Your task to perform on an android device: Open settings Image 0: 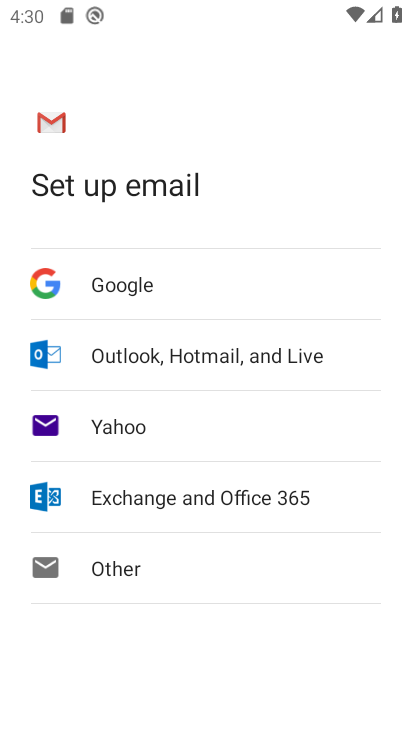
Step 0: press home button
Your task to perform on an android device: Open settings Image 1: 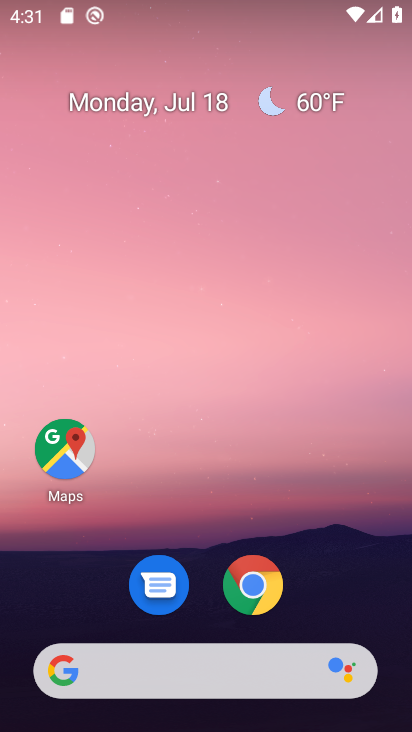
Step 1: drag from (321, 540) to (339, 15)
Your task to perform on an android device: Open settings Image 2: 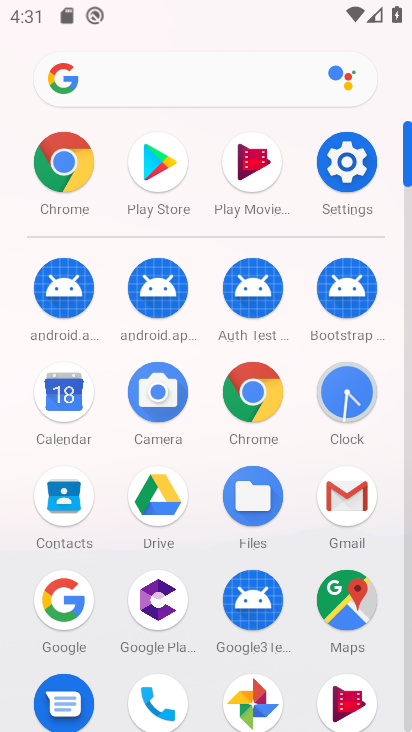
Step 2: click (355, 165)
Your task to perform on an android device: Open settings Image 3: 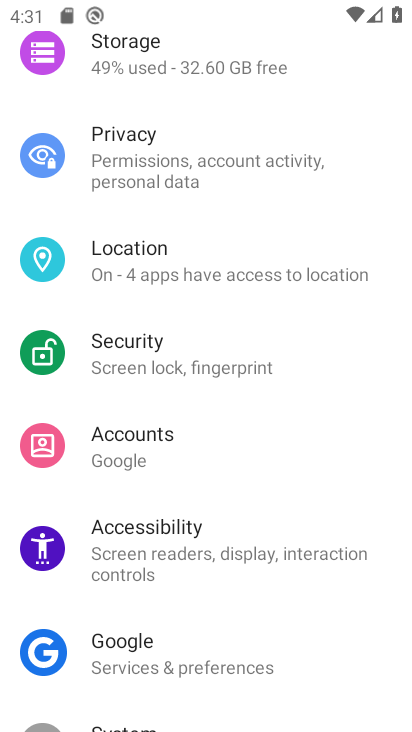
Step 3: task complete